Your task to perform on an android device: delete a single message in the gmail app Image 0: 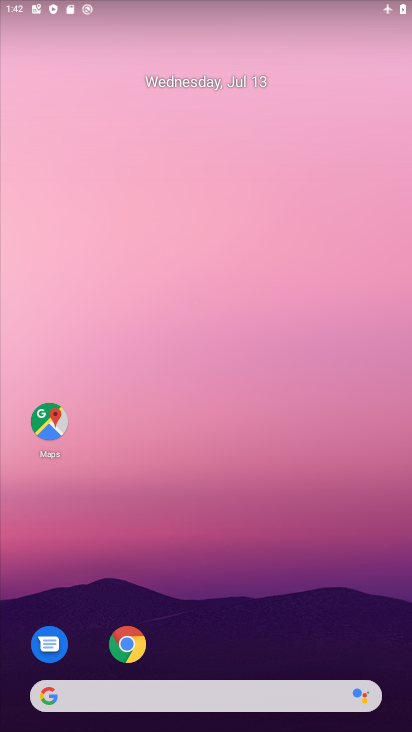
Step 0: drag from (239, 621) to (203, 181)
Your task to perform on an android device: delete a single message in the gmail app Image 1: 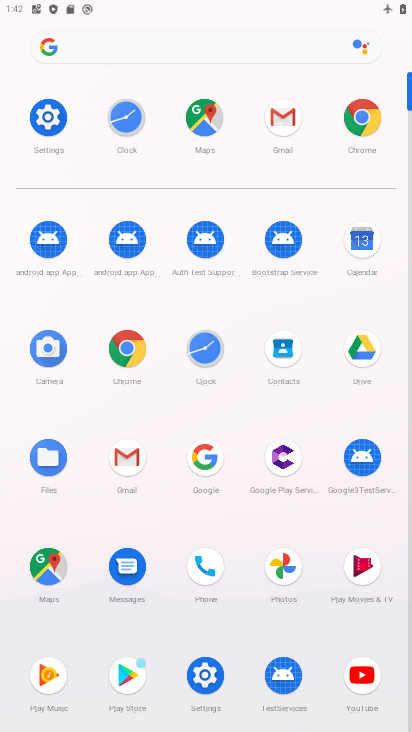
Step 1: click (282, 126)
Your task to perform on an android device: delete a single message in the gmail app Image 2: 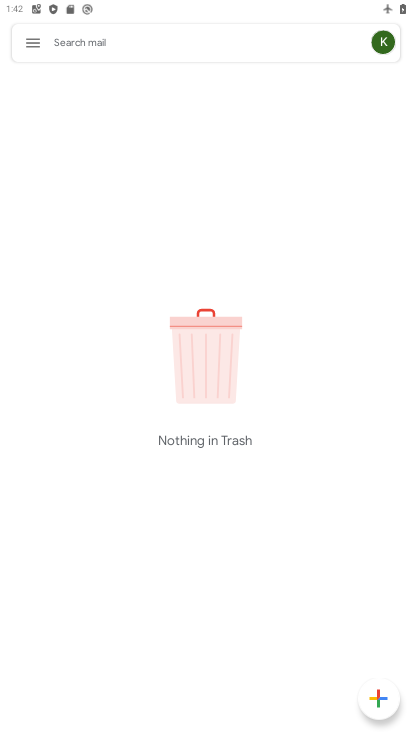
Step 2: click (36, 40)
Your task to perform on an android device: delete a single message in the gmail app Image 3: 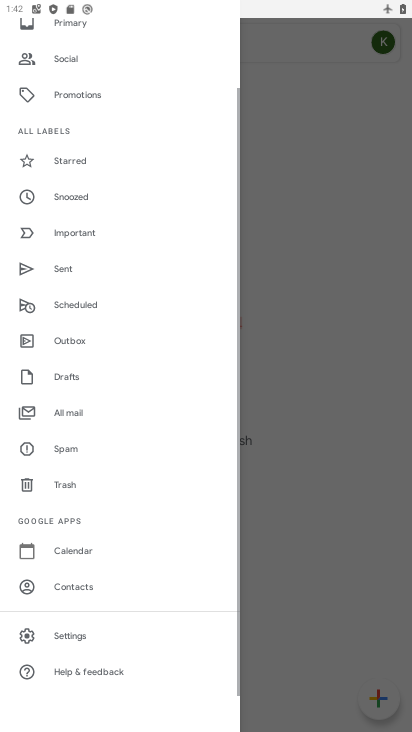
Step 3: drag from (141, 84) to (104, 590)
Your task to perform on an android device: delete a single message in the gmail app Image 4: 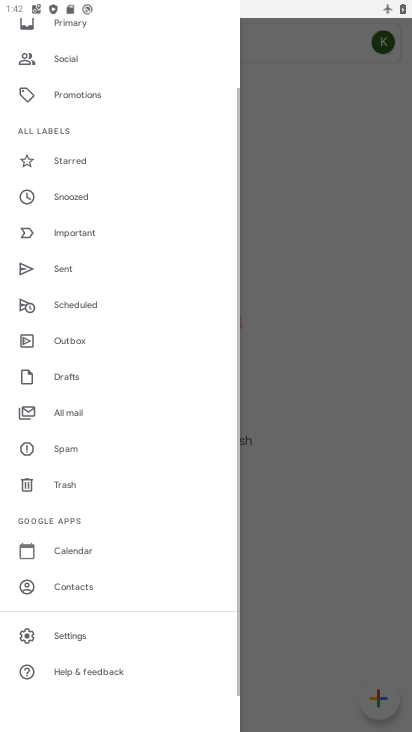
Step 4: drag from (58, 159) to (40, 673)
Your task to perform on an android device: delete a single message in the gmail app Image 5: 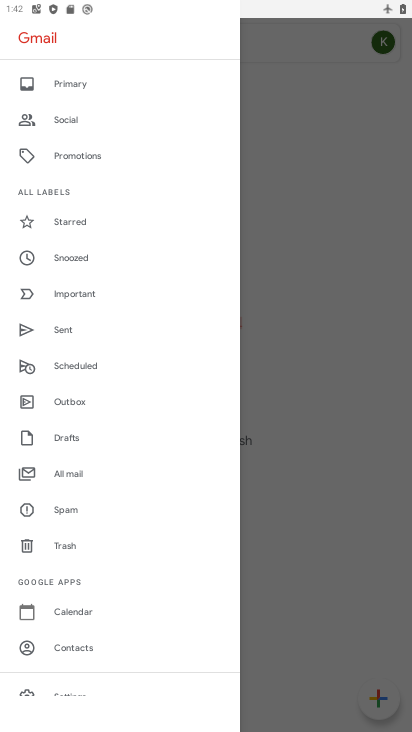
Step 5: click (71, 478)
Your task to perform on an android device: delete a single message in the gmail app Image 6: 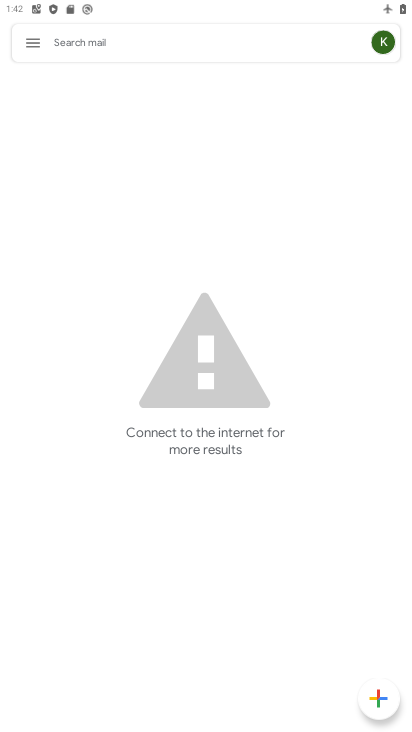
Step 6: task complete